Your task to perform on an android device: Search for pizza restaurants on Maps Image 0: 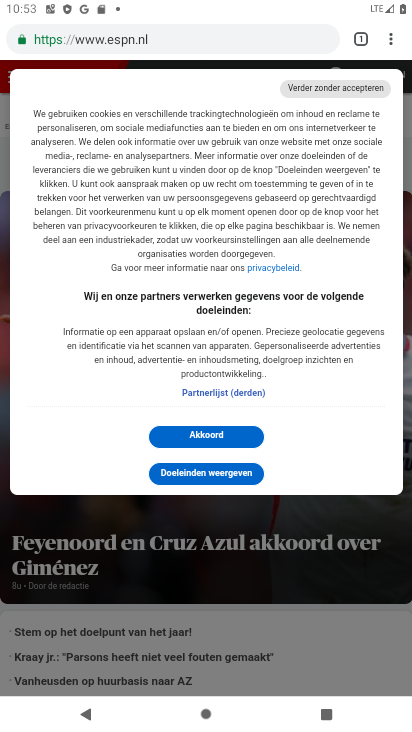
Step 0: press home button
Your task to perform on an android device: Search for pizza restaurants on Maps Image 1: 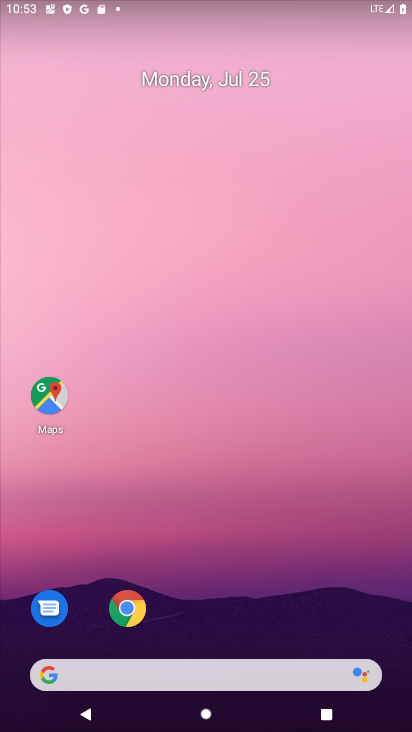
Step 1: drag from (219, 682) to (279, 146)
Your task to perform on an android device: Search for pizza restaurants on Maps Image 2: 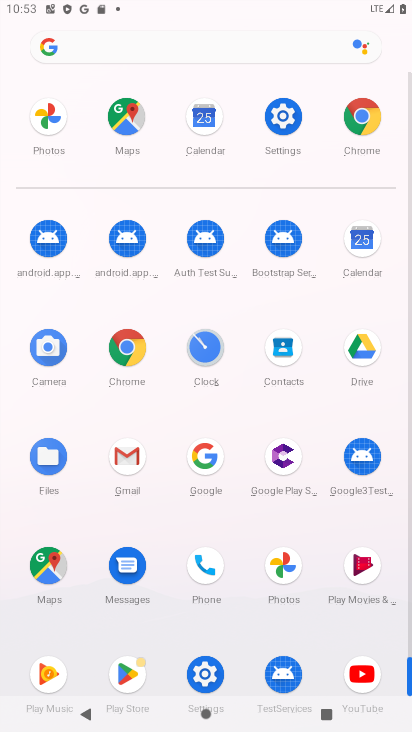
Step 2: click (47, 578)
Your task to perform on an android device: Search for pizza restaurants on Maps Image 3: 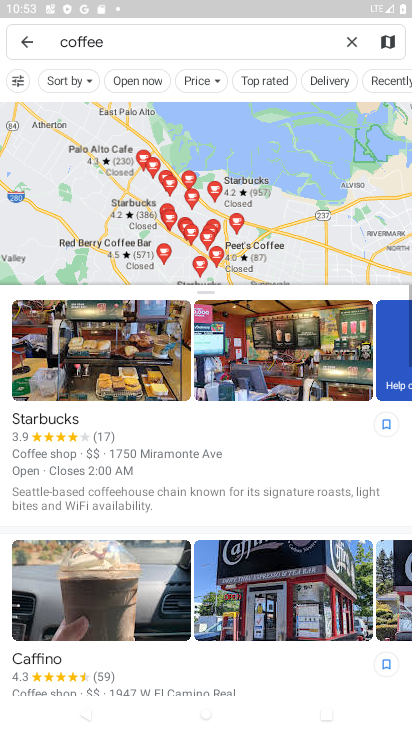
Step 3: click (355, 38)
Your task to perform on an android device: Search for pizza restaurants on Maps Image 4: 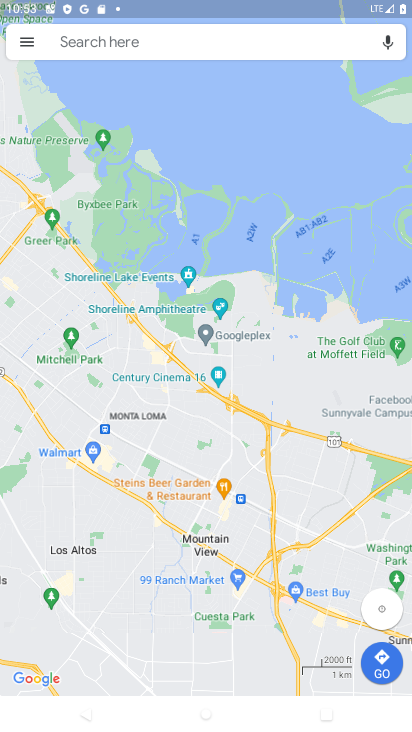
Step 4: click (261, 42)
Your task to perform on an android device: Search for pizza restaurants on Maps Image 5: 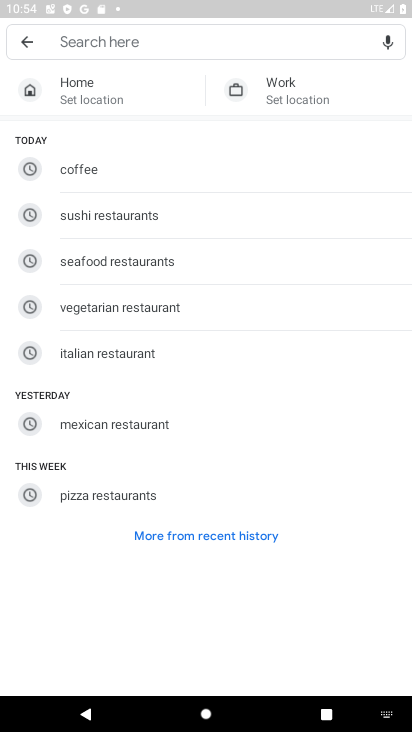
Step 5: click (146, 495)
Your task to perform on an android device: Search for pizza restaurants on Maps Image 6: 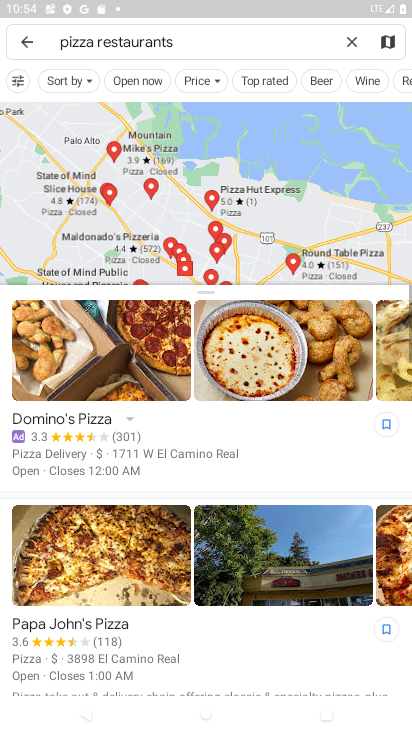
Step 6: task complete